Your task to perform on an android device: Open the phone app and click the voicemail tab. Image 0: 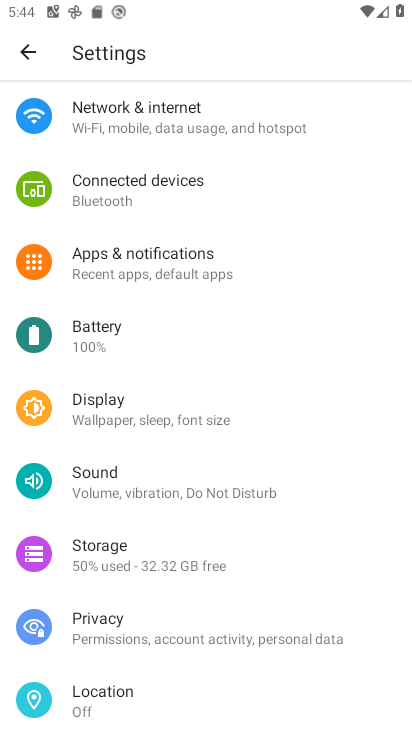
Step 0: press home button
Your task to perform on an android device: Open the phone app and click the voicemail tab. Image 1: 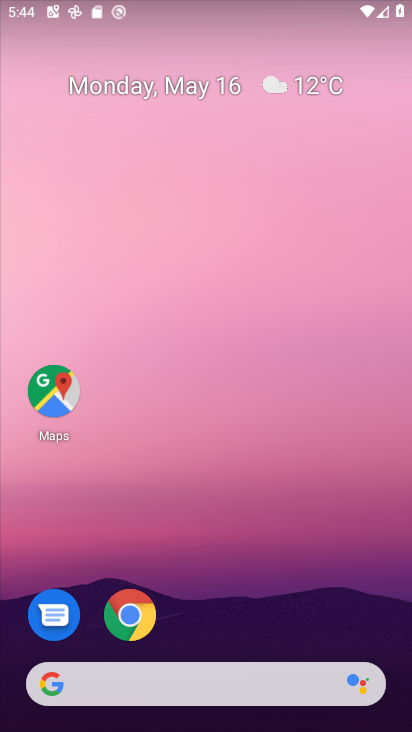
Step 1: drag from (232, 632) to (279, 211)
Your task to perform on an android device: Open the phone app and click the voicemail tab. Image 2: 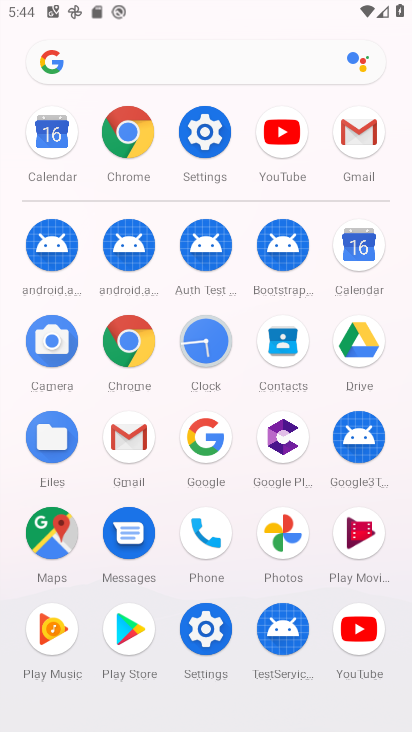
Step 2: click (205, 548)
Your task to perform on an android device: Open the phone app and click the voicemail tab. Image 3: 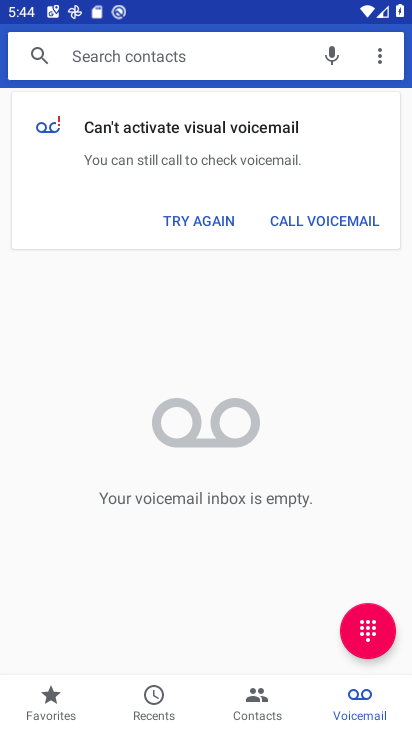
Step 3: click (360, 709)
Your task to perform on an android device: Open the phone app and click the voicemail tab. Image 4: 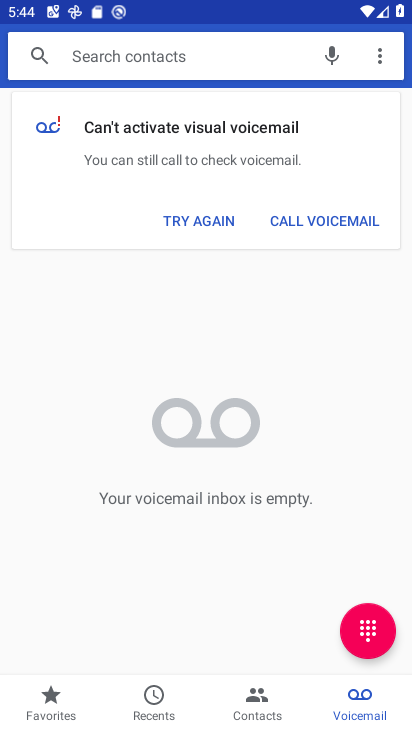
Step 4: task complete